Your task to perform on an android device: delete the emails in spam in the gmail app Image 0: 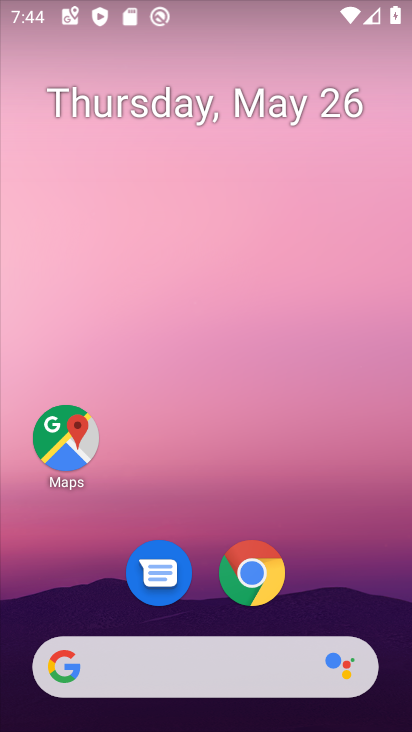
Step 0: drag from (220, 616) to (180, 67)
Your task to perform on an android device: delete the emails in spam in the gmail app Image 1: 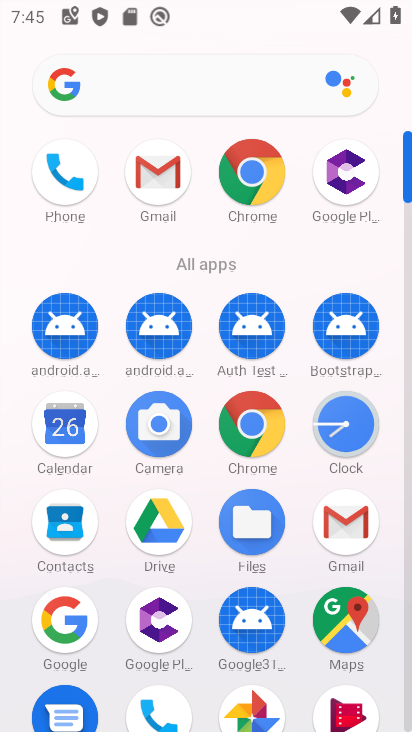
Step 1: click (342, 530)
Your task to perform on an android device: delete the emails in spam in the gmail app Image 2: 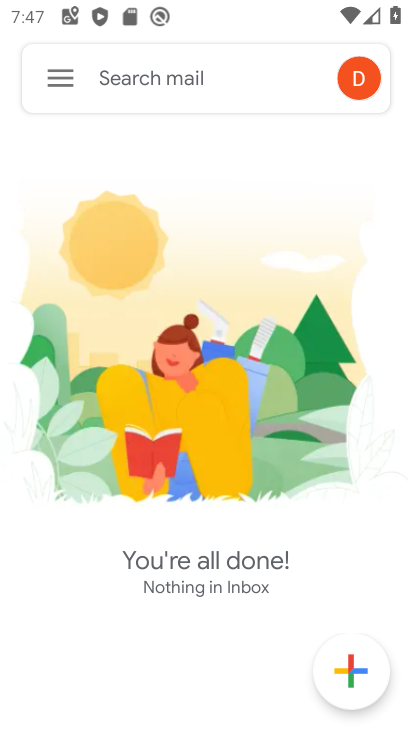
Step 2: task complete